Your task to perform on an android device: toggle pop-ups in chrome Image 0: 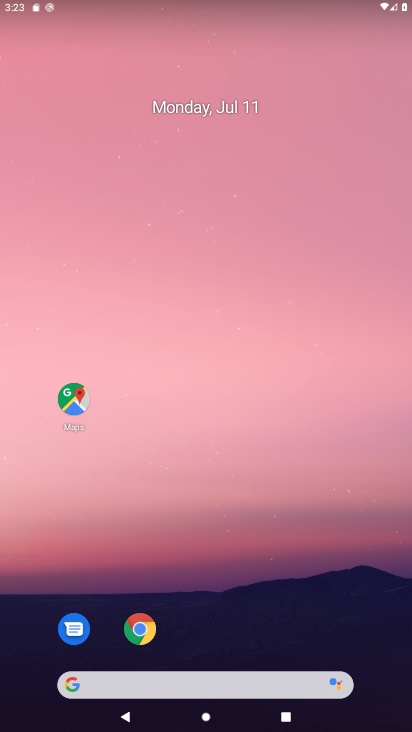
Step 0: drag from (233, 532) to (308, 12)
Your task to perform on an android device: toggle pop-ups in chrome Image 1: 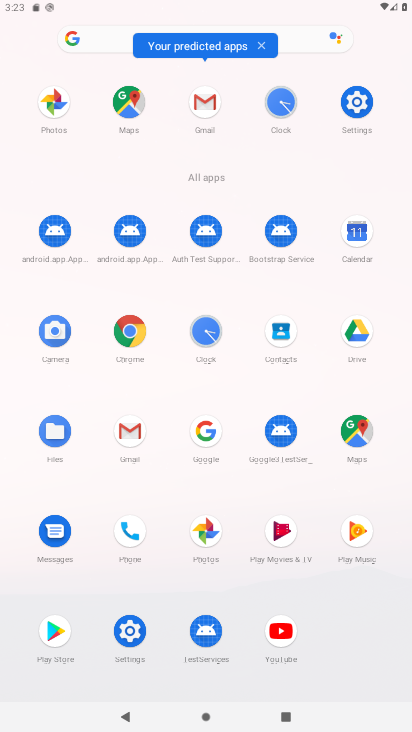
Step 1: click (123, 335)
Your task to perform on an android device: toggle pop-ups in chrome Image 2: 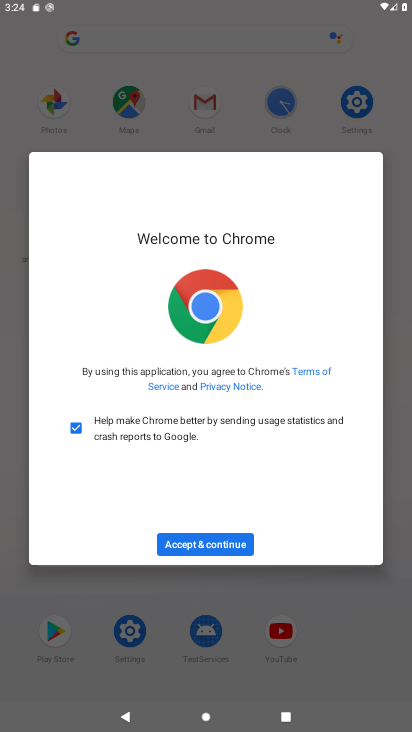
Step 2: click (189, 534)
Your task to perform on an android device: toggle pop-ups in chrome Image 3: 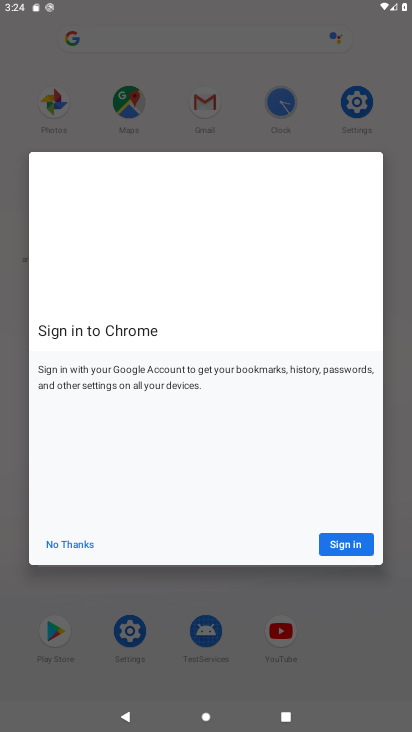
Step 3: click (189, 541)
Your task to perform on an android device: toggle pop-ups in chrome Image 4: 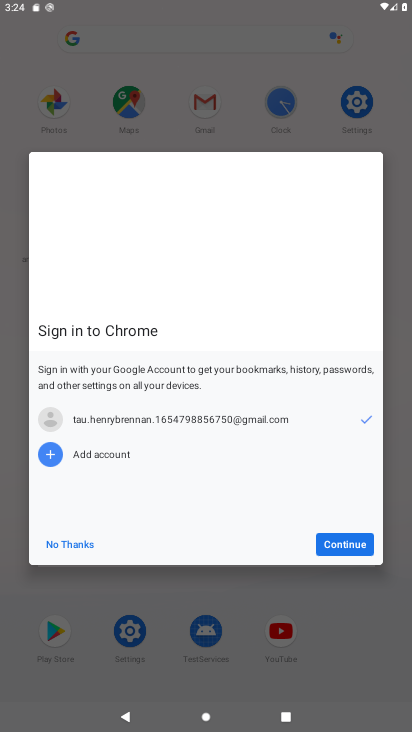
Step 4: click (355, 540)
Your task to perform on an android device: toggle pop-ups in chrome Image 5: 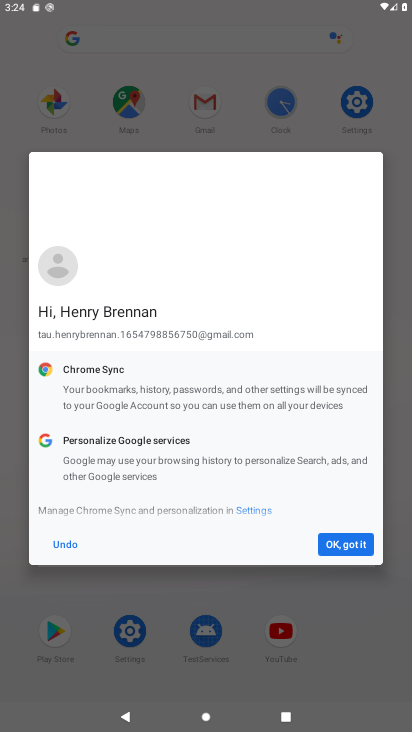
Step 5: click (355, 540)
Your task to perform on an android device: toggle pop-ups in chrome Image 6: 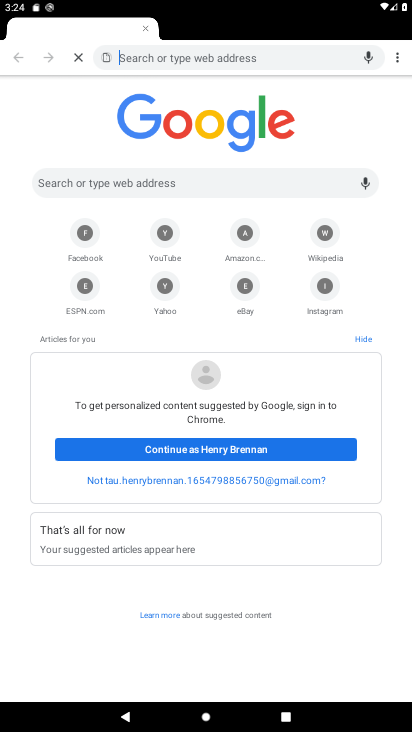
Step 6: drag from (400, 53) to (296, 265)
Your task to perform on an android device: toggle pop-ups in chrome Image 7: 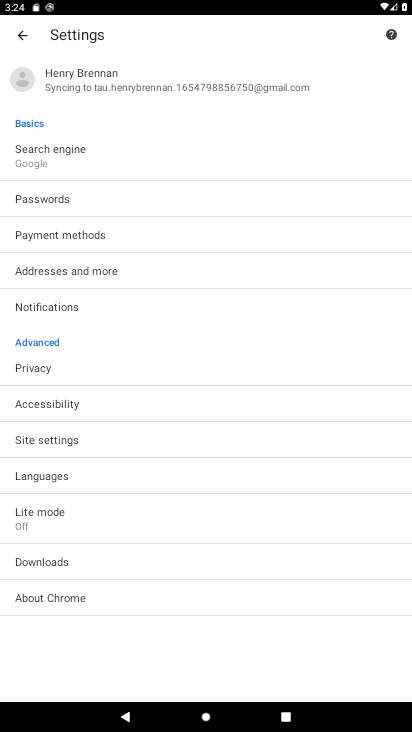
Step 7: click (54, 445)
Your task to perform on an android device: toggle pop-ups in chrome Image 8: 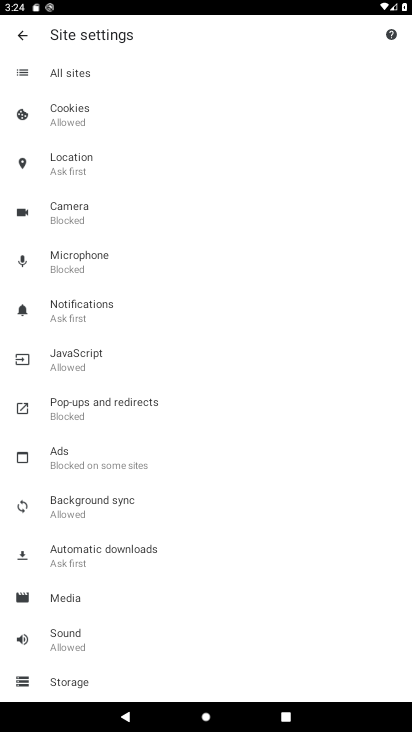
Step 8: click (118, 410)
Your task to perform on an android device: toggle pop-ups in chrome Image 9: 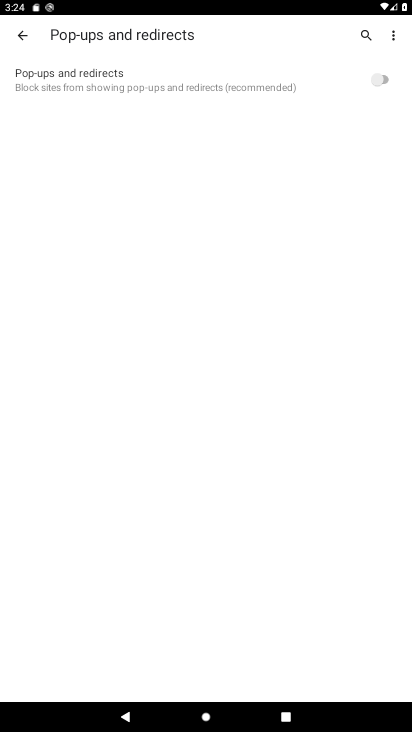
Step 9: click (377, 78)
Your task to perform on an android device: toggle pop-ups in chrome Image 10: 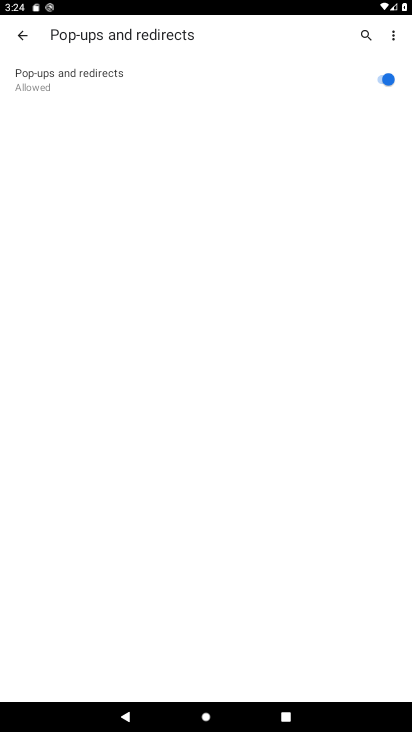
Step 10: task complete